Your task to perform on an android device: toggle translation in the chrome app Image 0: 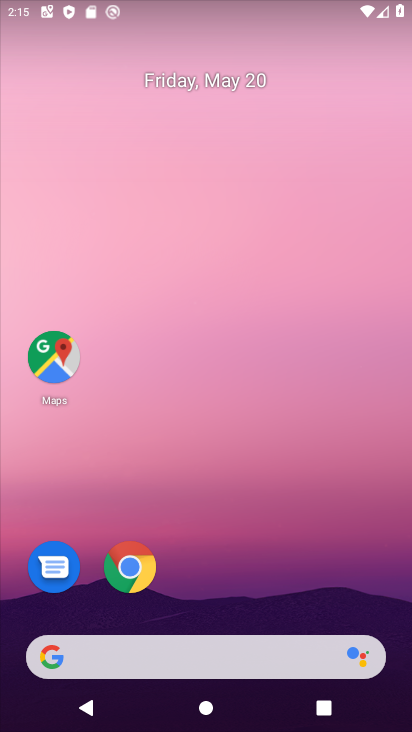
Step 0: drag from (226, 545) to (226, 24)
Your task to perform on an android device: toggle translation in the chrome app Image 1: 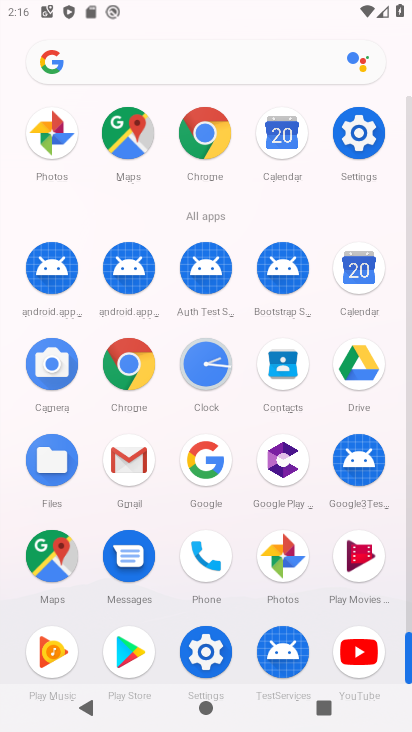
Step 1: drag from (4, 451) to (16, 253)
Your task to perform on an android device: toggle translation in the chrome app Image 2: 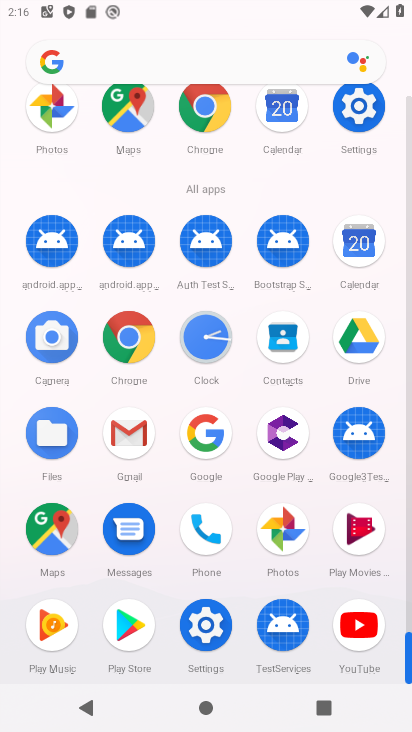
Step 2: click (124, 333)
Your task to perform on an android device: toggle translation in the chrome app Image 3: 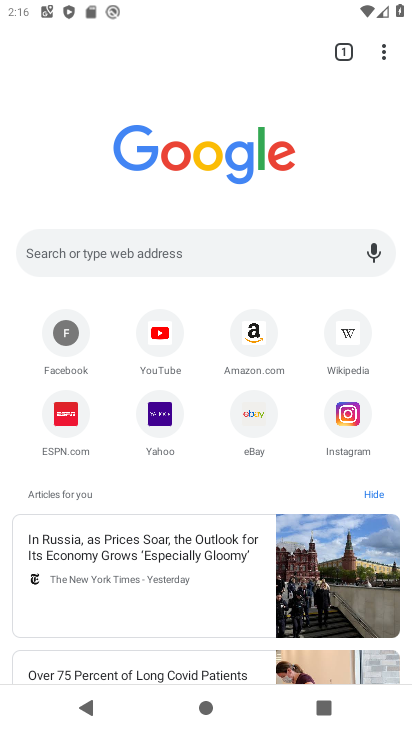
Step 3: drag from (383, 53) to (177, 433)
Your task to perform on an android device: toggle translation in the chrome app Image 4: 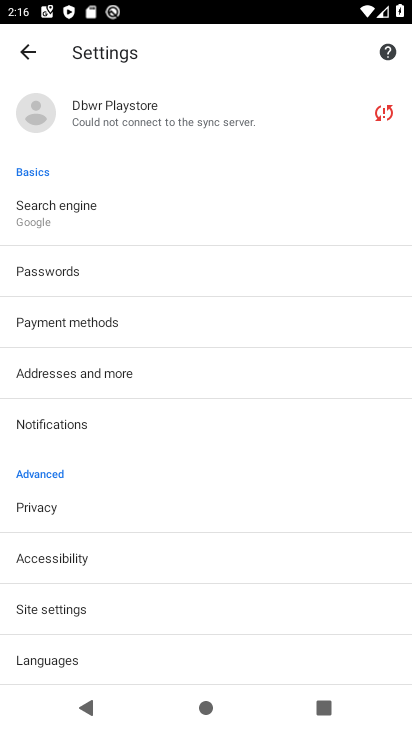
Step 4: click (96, 659)
Your task to perform on an android device: toggle translation in the chrome app Image 5: 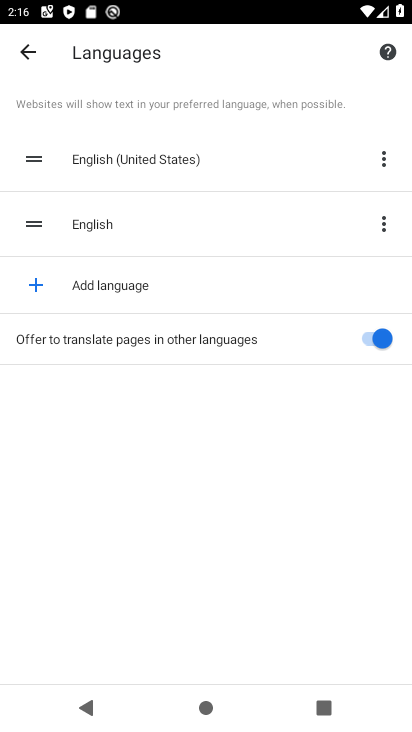
Step 5: click (357, 336)
Your task to perform on an android device: toggle translation in the chrome app Image 6: 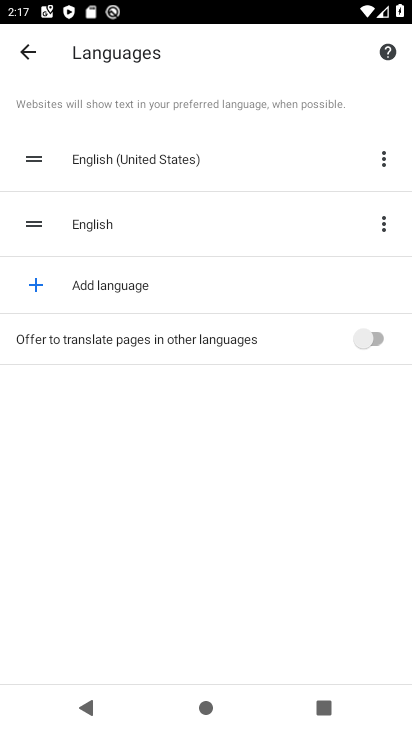
Step 6: task complete